Your task to perform on an android device: What's the weather today? Image 0: 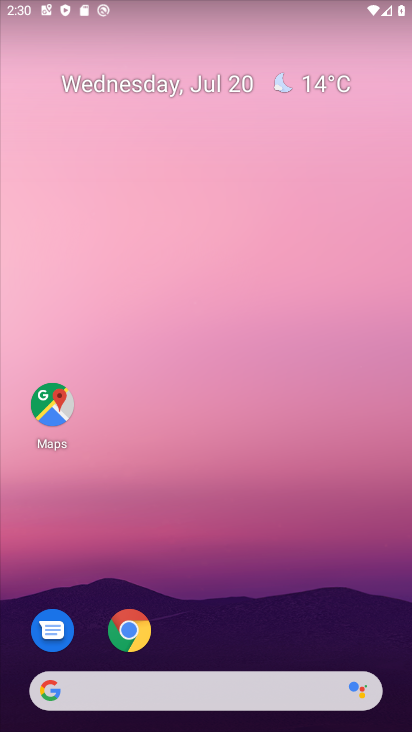
Step 0: click (232, 686)
Your task to perform on an android device: What's the weather today? Image 1: 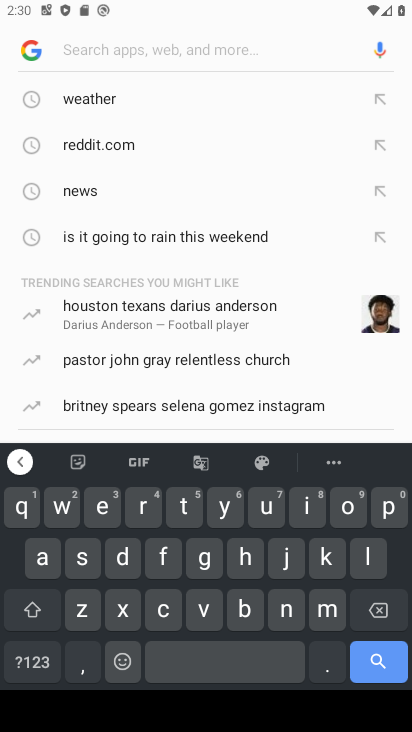
Step 1: click (103, 100)
Your task to perform on an android device: What's the weather today? Image 2: 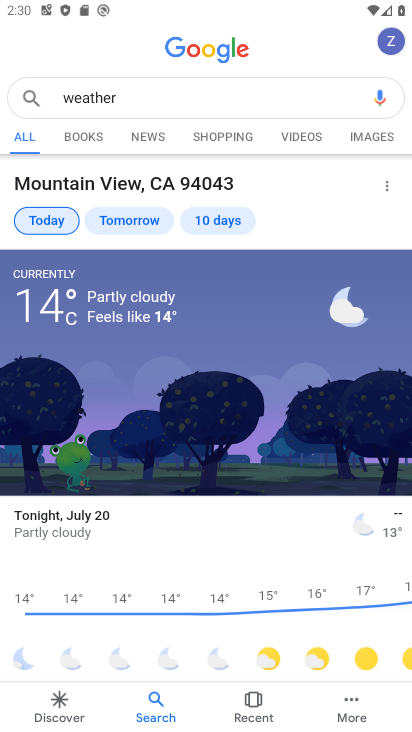
Step 2: task complete